Your task to perform on an android device: check battery use Image 0: 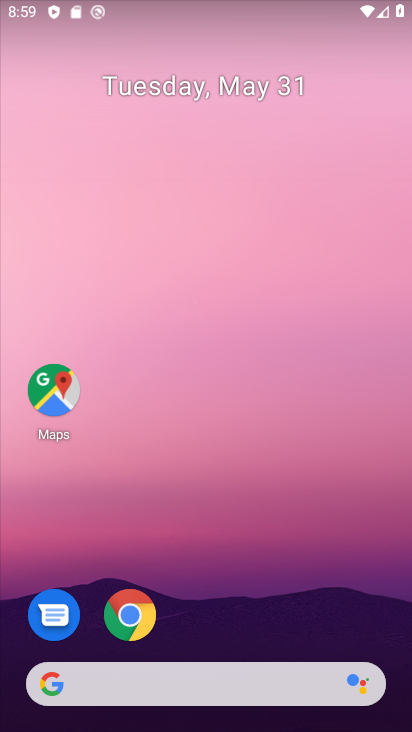
Step 0: drag from (278, 573) to (285, 2)
Your task to perform on an android device: check battery use Image 1: 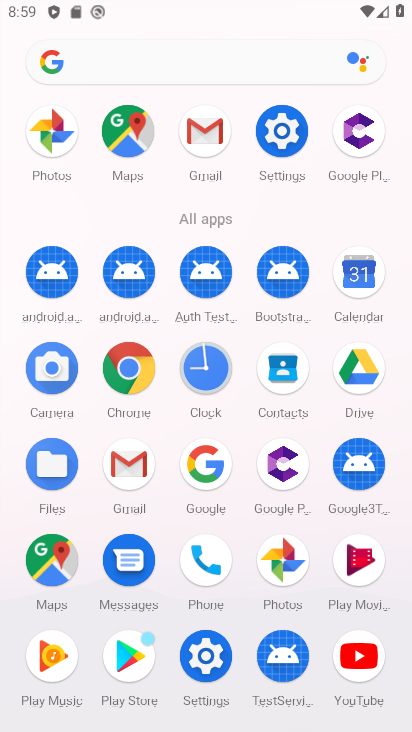
Step 1: click (283, 126)
Your task to perform on an android device: check battery use Image 2: 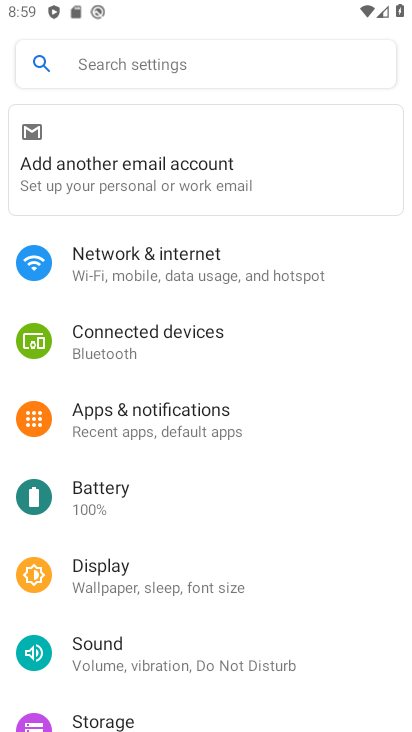
Step 2: click (133, 494)
Your task to perform on an android device: check battery use Image 3: 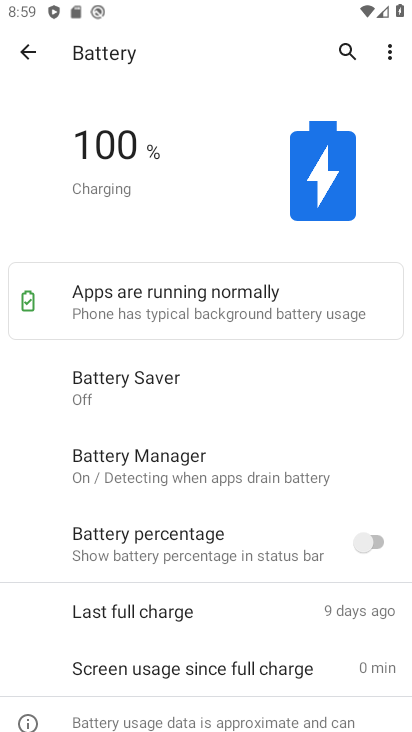
Step 3: click (389, 49)
Your task to perform on an android device: check battery use Image 4: 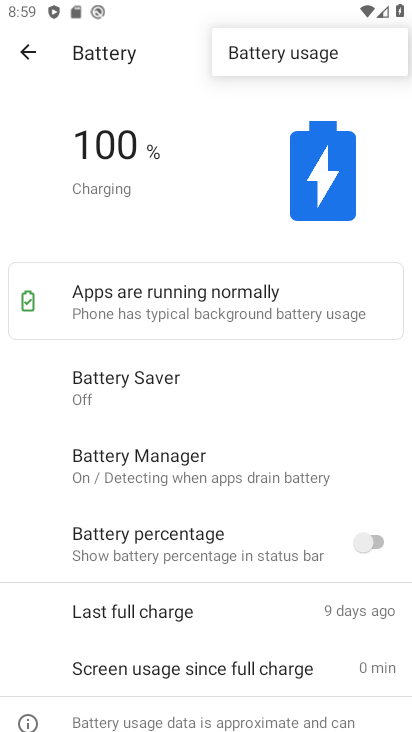
Step 4: click (356, 67)
Your task to perform on an android device: check battery use Image 5: 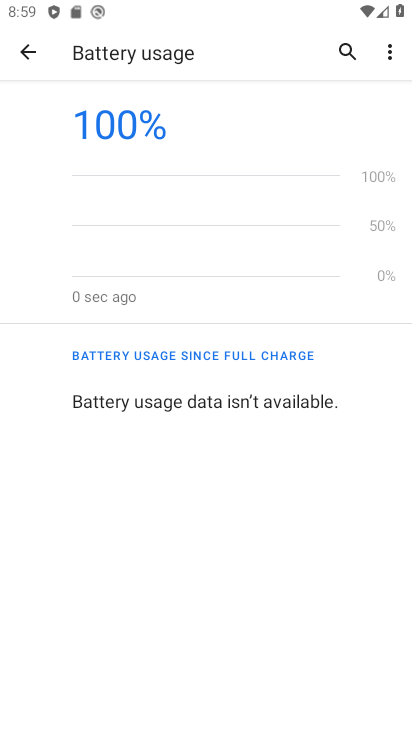
Step 5: task complete